Your task to perform on an android device: Open calendar and show me the fourth week of next month Image 0: 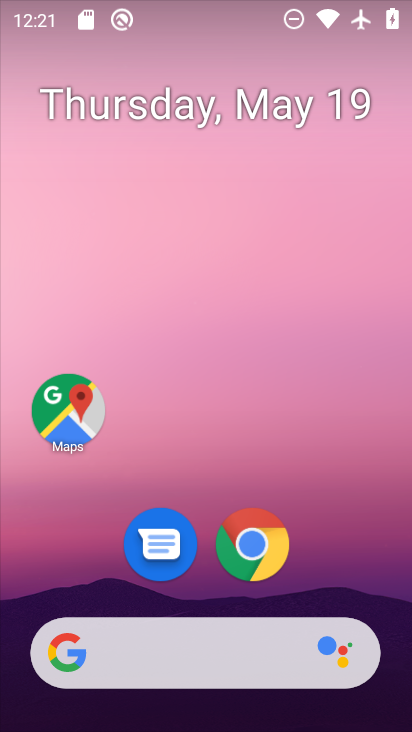
Step 0: drag from (375, 549) to (264, 89)
Your task to perform on an android device: Open calendar and show me the fourth week of next month Image 1: 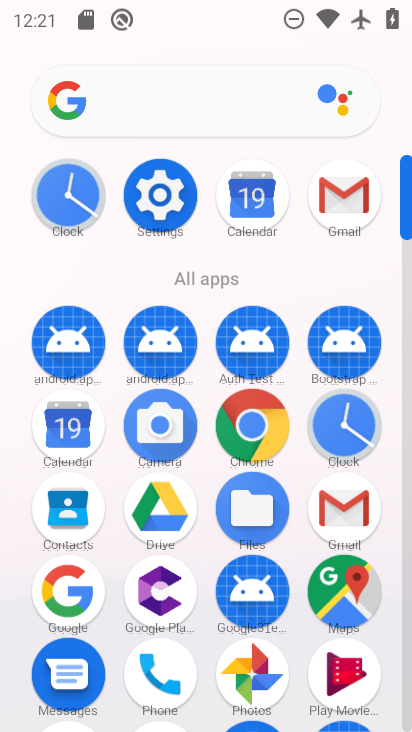
Step 1: click (258, 202)
Your task to perform on an android device: Open calendar and show me the fourth week of next month Image 2: 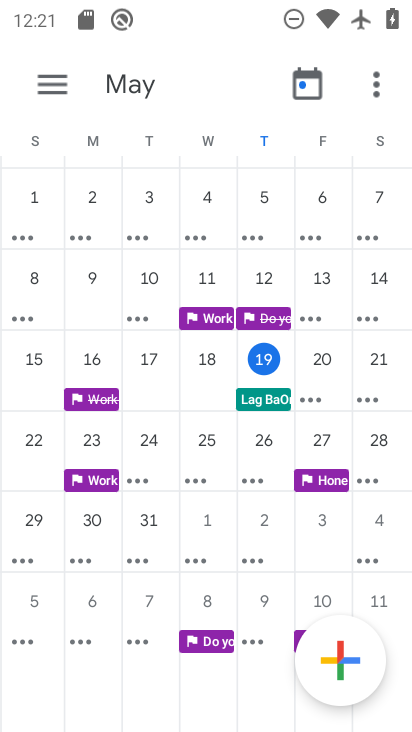
Step 2: click (62, 90)
Your task to perform on an android device: Open calendar and show me the fourth week of next month Image 3: 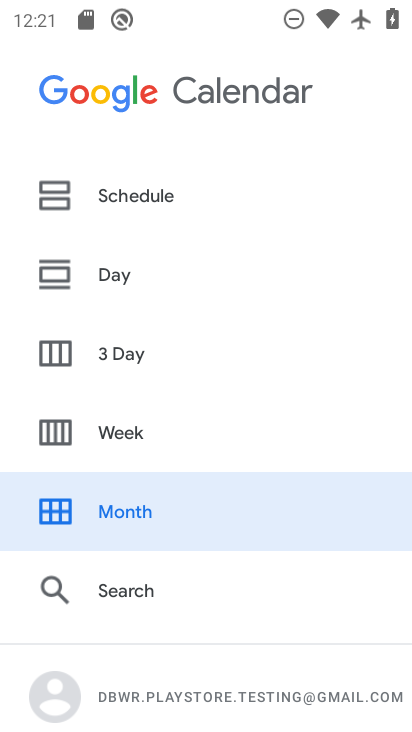
Step 3: click (94, 222)
Your task to perform on an android device: Open calendar and show me the fourth week of next month Image 4: 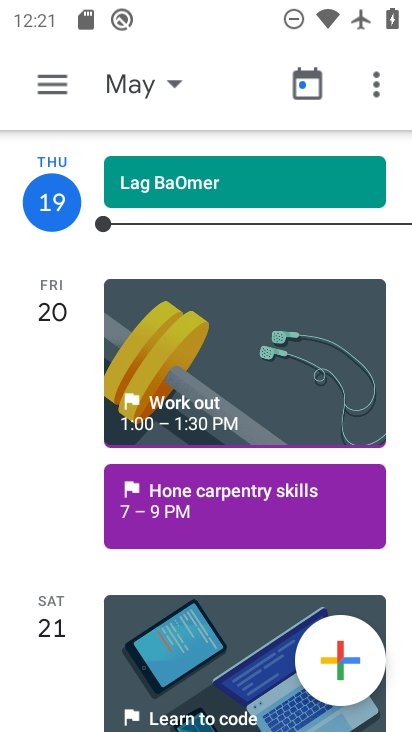
Step 4: click (156, 93)
Your task to perform on an android device: Open calendar and show me the fourth week of next month Image 5: 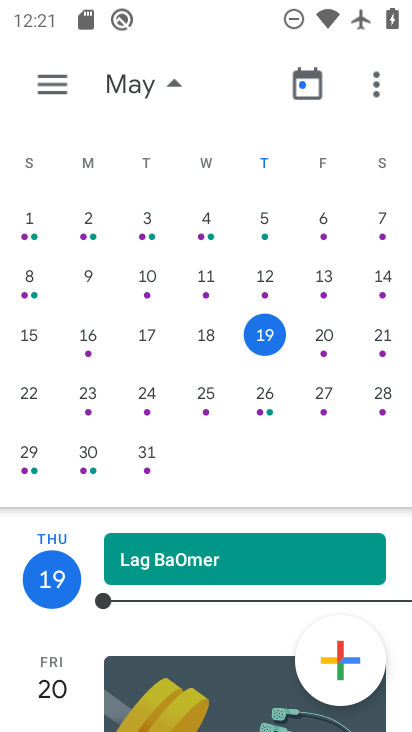
Step 5: drag from (406, 326) to (4, 415)
Your task to perform on an android device: Open calendar and show me the fourth week of next month Image 6: 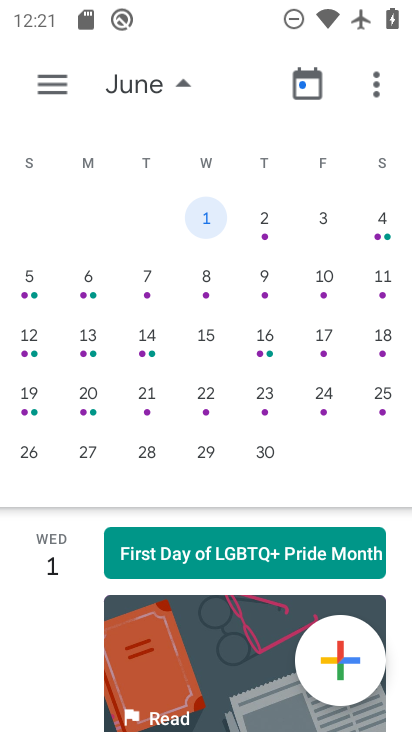
Step 6: click (62, 94)
Your task to perform on an android device: Open calendar and show me the fourth week of next month Image 7: 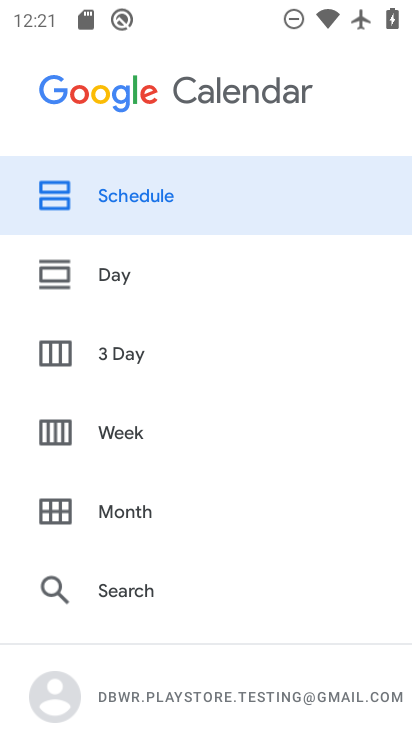
Step 7: click (129, 490)
Your task to perform on an android device: Open calendar and show me the fourth week of next month Image 8: 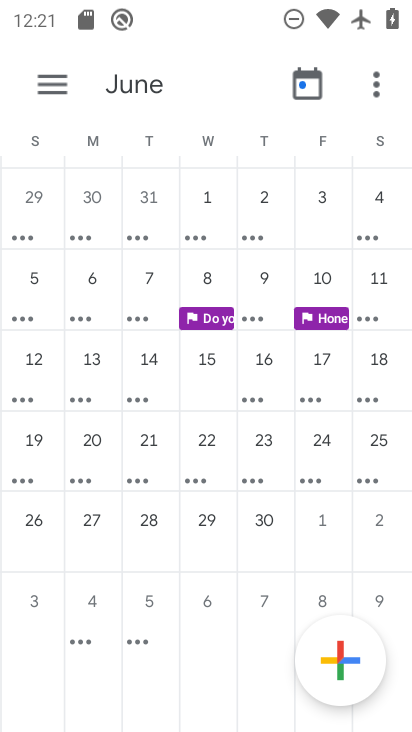
Step 8: click (195, 432)
Your task to perform on an android device: Open calendar and show me the fourth week of next month Image 9: 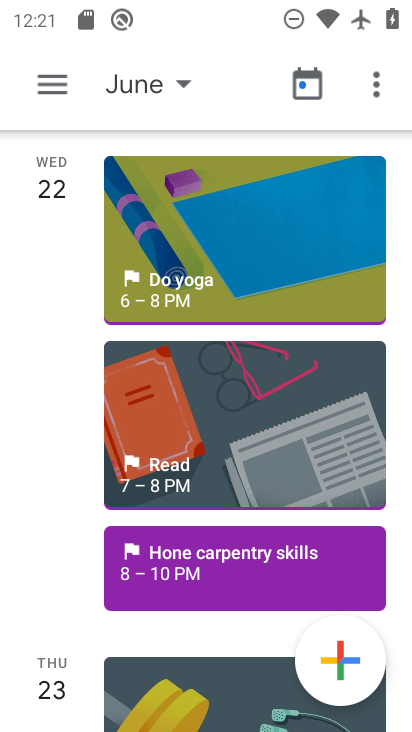
Step 9: task complete